Your task to perform on an android device: Go to internet settings Image 0: 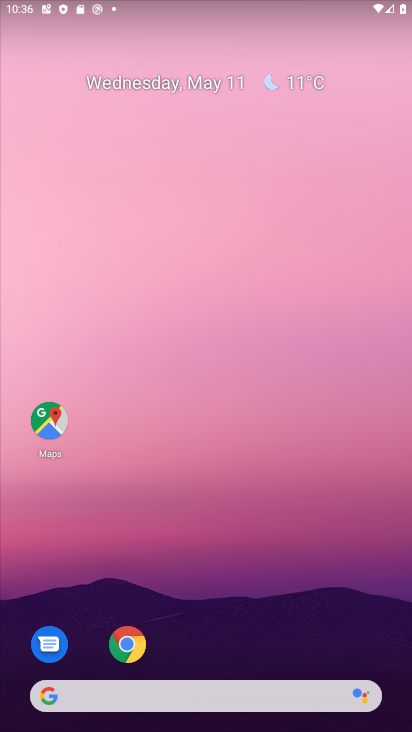
Step 0: drag from (206, 644) to (247, 16)
Your task to perform on an android device: Go to internet settings Image 1: 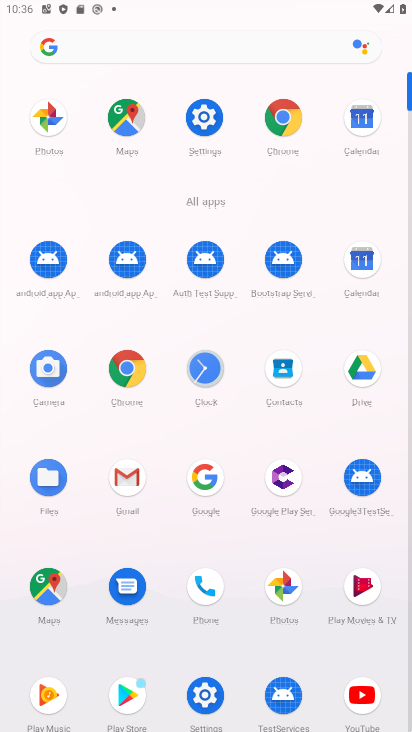
Step 1: click (203, 110)
Your task to perform on an android device: Go to internet settings Image 2: 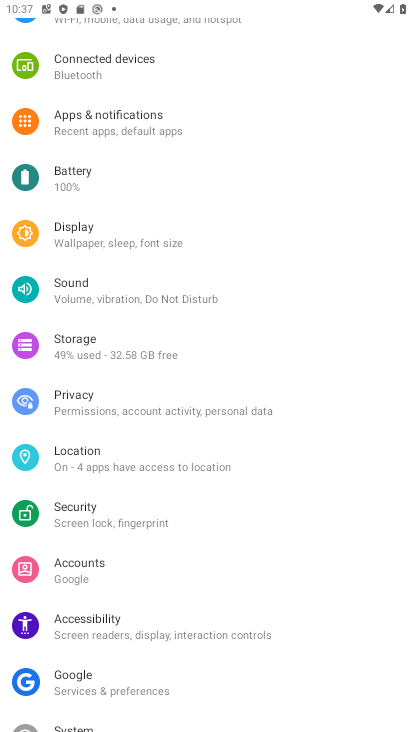
Step 2: drag from (120, 99) to (106, 661)
Your task to perform on an android device: Go to internet settings Image 3: 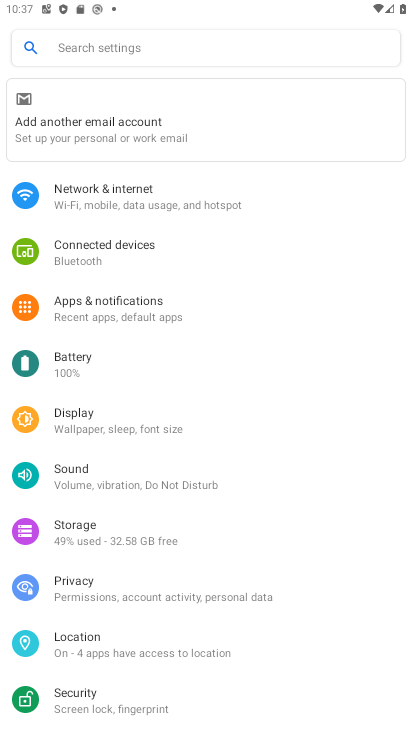
Step 3: click (91, 194)
Your task to perform on an android device: Go to internet settings Image 4: 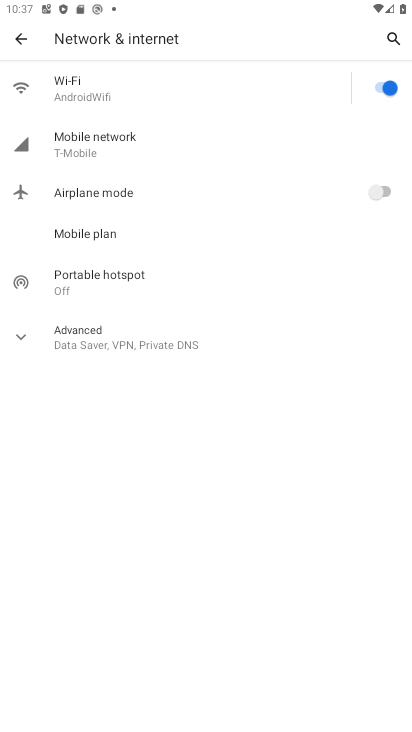
Step 4: click (17, 337)
Your task to perform on an android device: Go to internet settings Image 5: 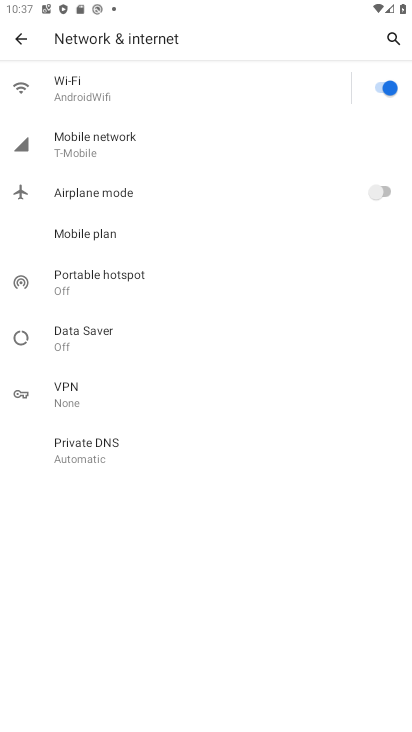
Step 5: task complete